Your task to perform on an android device: turn on the 24-hour format for clock Image 0: 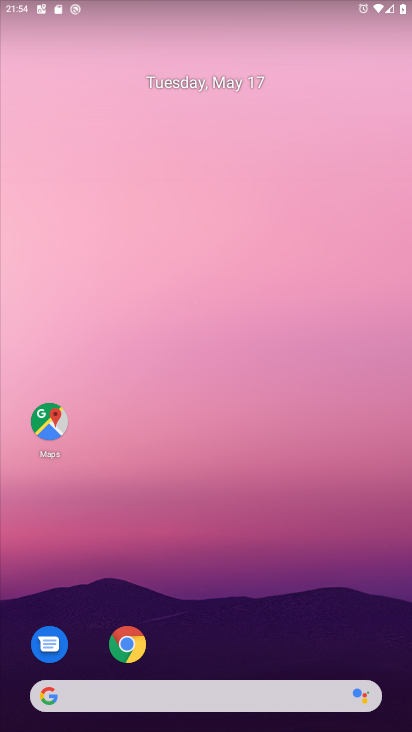
Step 0: drag from (249, 643) to (266, 215)
Your task to perform on an android device: turn on the 24-hour format for clock Image 1: 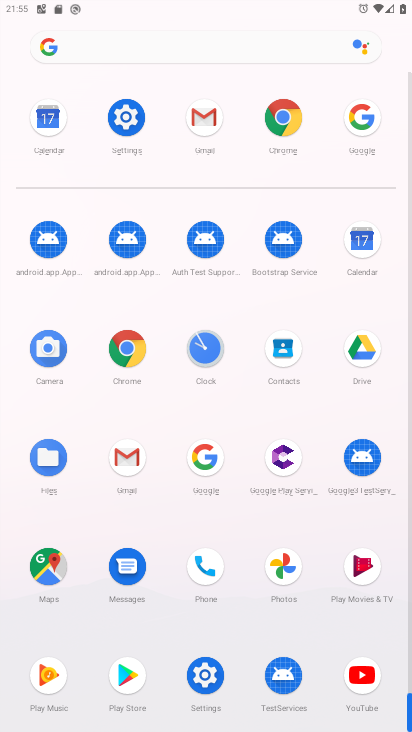
Step 1: click (200, 354)
Your task to perform on an android device: turn on the 24-hour format for clock Image 2: 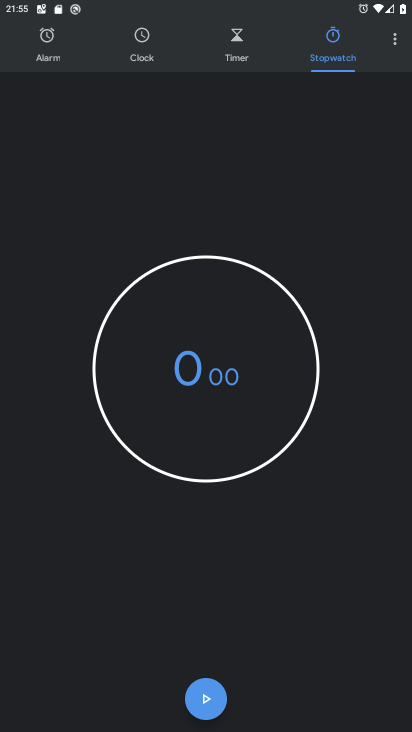
Step 2: click (385, 51)
Your task to perform on an android device: turn on the 24-hour format for clock Image 3: 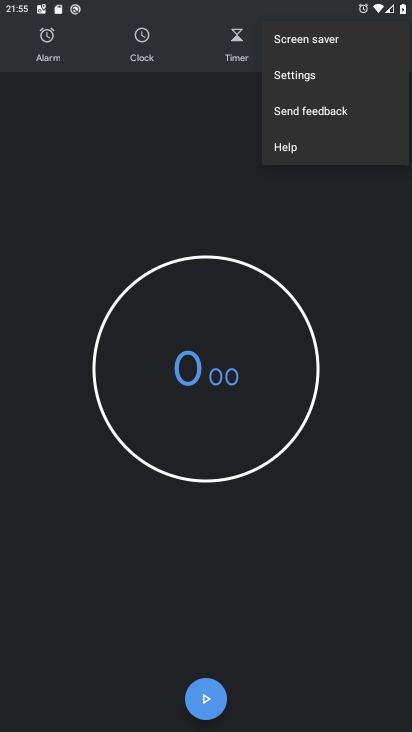
Step 3: click (315, 72)
Your task to perform on an android device: turn on the 24-hour format for clock Image 4: 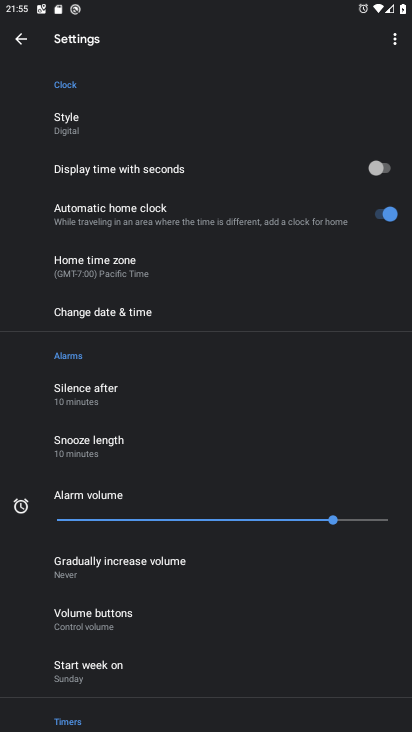
Step 4: click (165, 301)
Your task to perform on an android device: turn on the 24-hour format for clock Image 5: 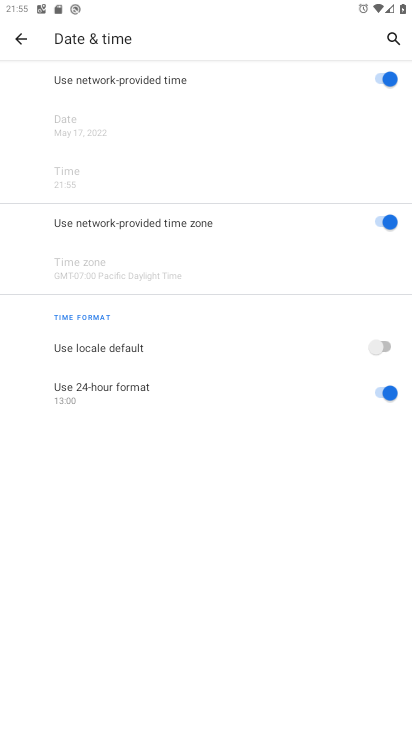
Step 5: task complete